Your task to perform on an android device: Look up the best rated headphones on Aliexpress Image 0: 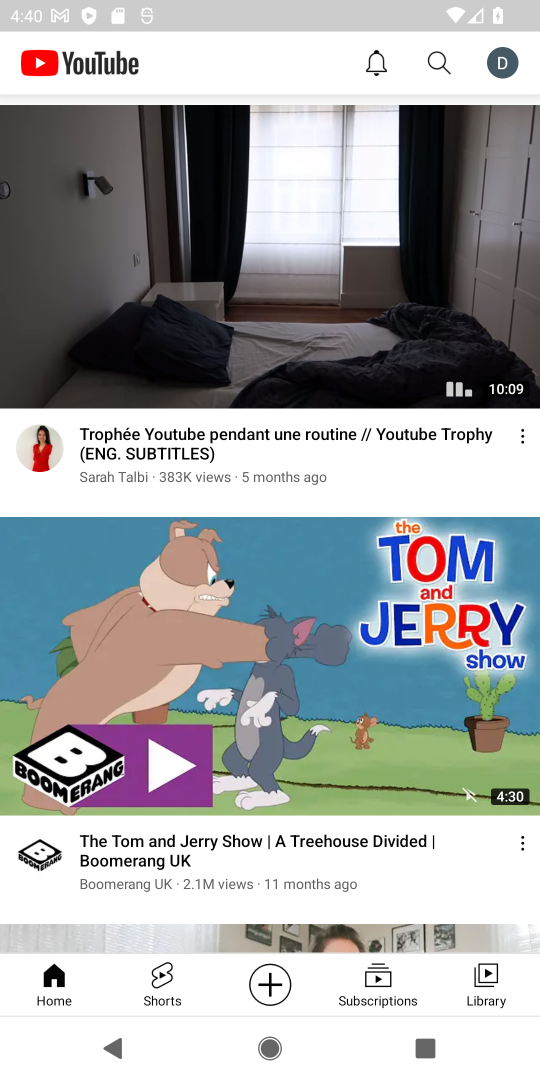
Step 0: click (441, 67)
Your task to perform on an android device: Look up the best rated headphones on Aliexpress Image 1: 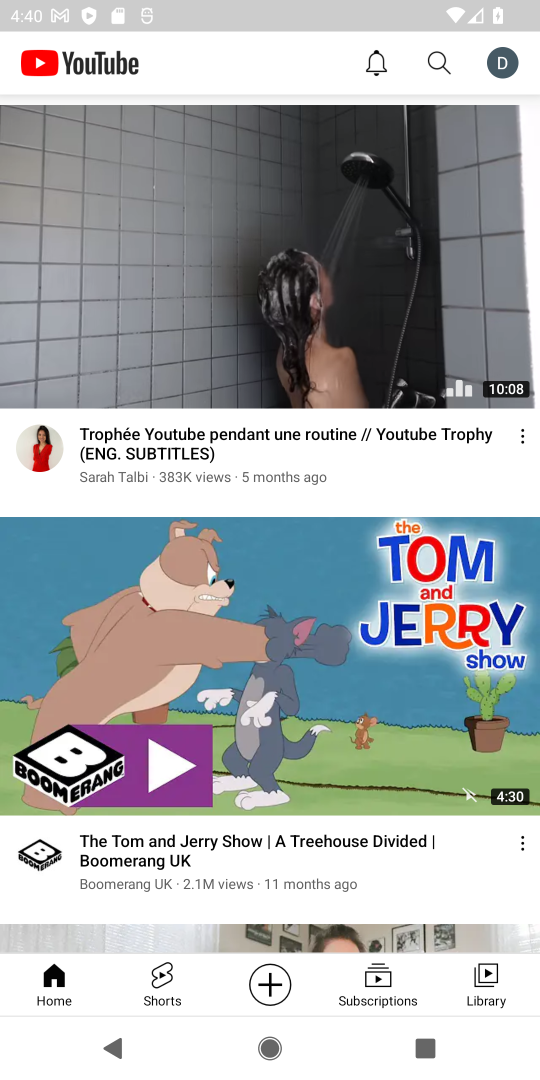
Step 1: press home button
Your task to perform on an android device: Look up the best rated headphones on Aliexpress Image 2: 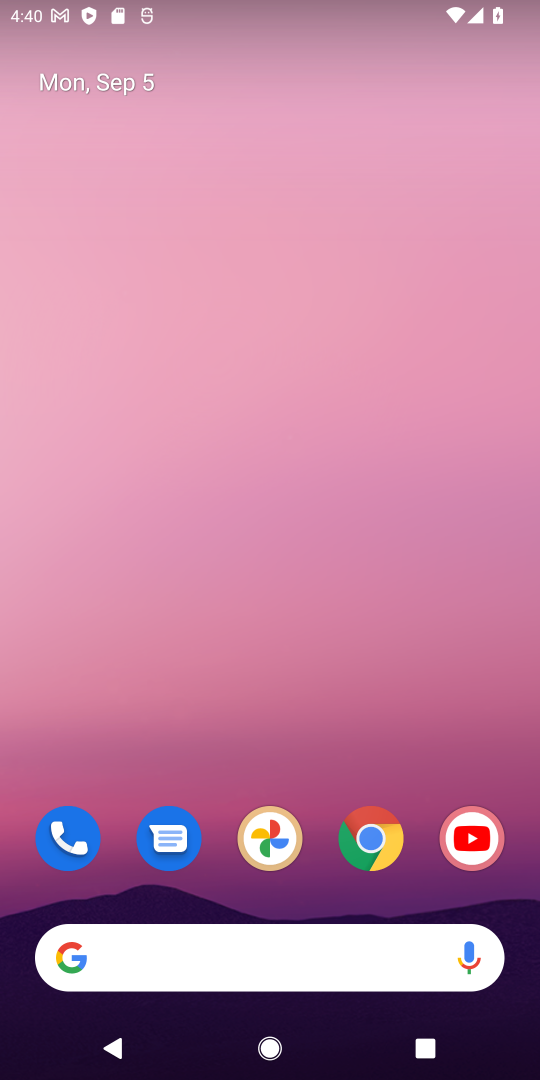
Step 2: click (367, 843)
Your task to perform on an android device: Look up the best rated headphones on Aliexpress Image 3: 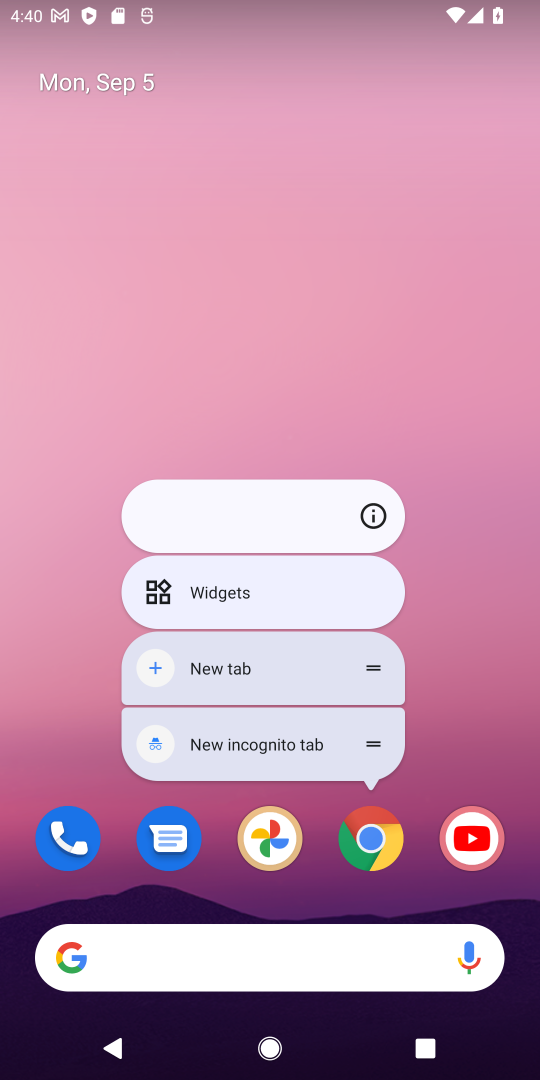
Step 3: click (374, 841)
Your task to perform on an android device: Look up the best rated headphones on Aliexpress Image 4: 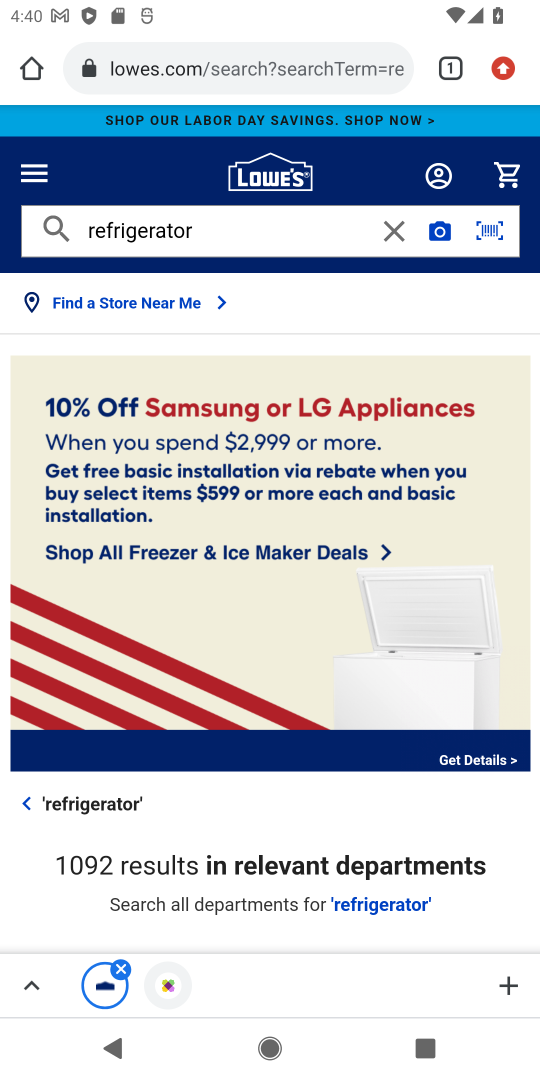
Step 4: click (297, 64)
Your task to perform on an android device: Look up the best rated headphones on Aliexpress Image 5: 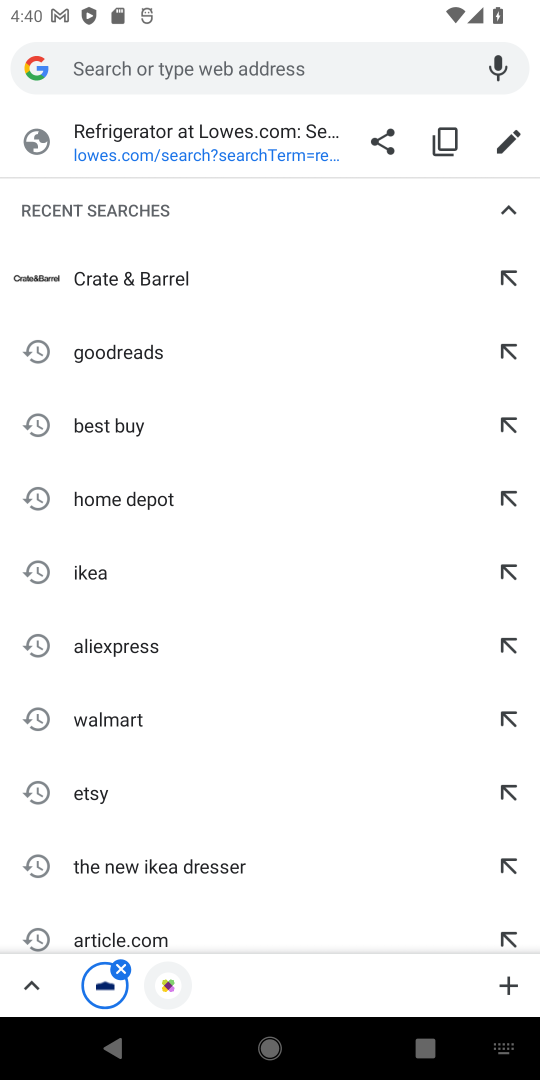
Step 5: type "Aliexpress"
Your task to perform on an android device: Look up the best rated headphones on Aliexpress Image 6: 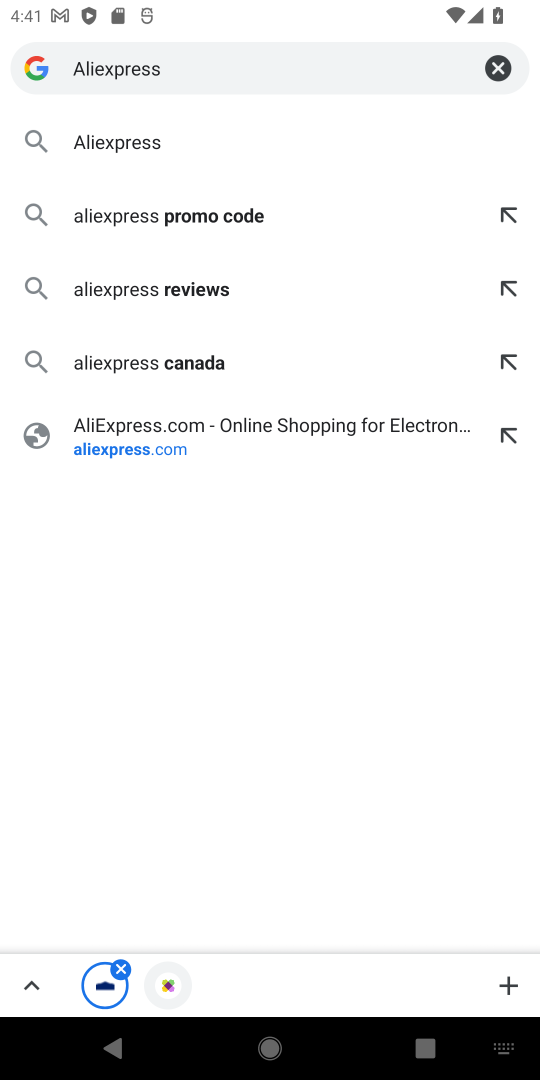
Step 6: click (125, 135)
Your task to perform on an android device: Look up the best rated headphones on Aliexpress Image 7: 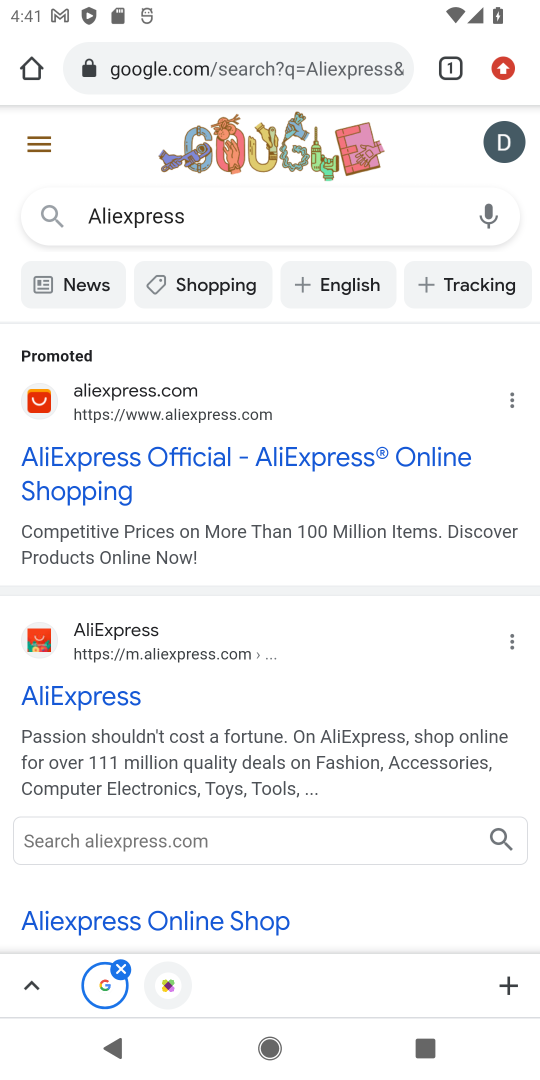
Step 7: click (109, 458)
Your task to perform on an android device: Look up the best rated headphones on Aliexpress Image 8: 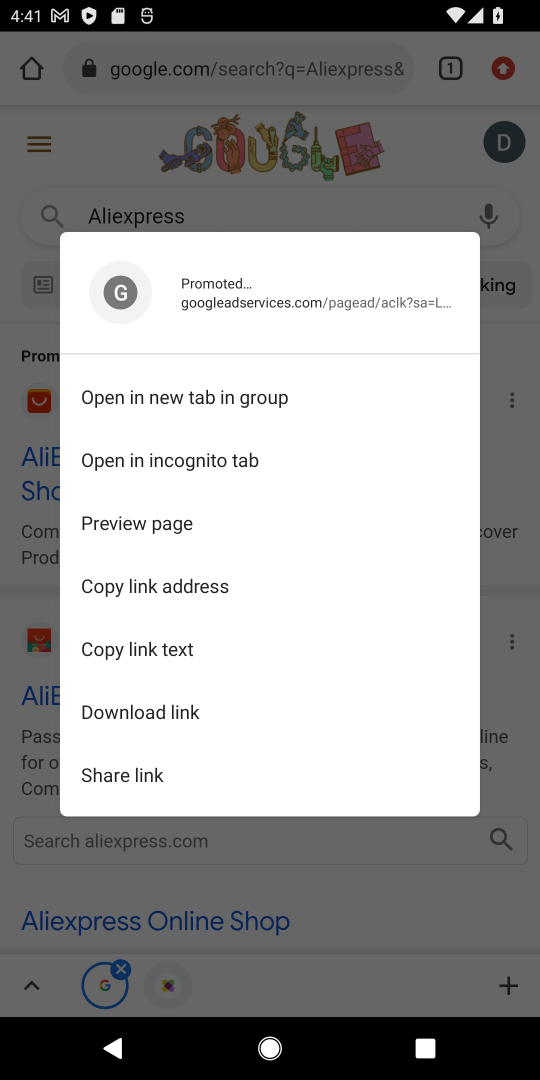
Step 8: click (518, 575)
Your task to perform on an android device: Look up the best rated headphones on Aliexpress Image 9: 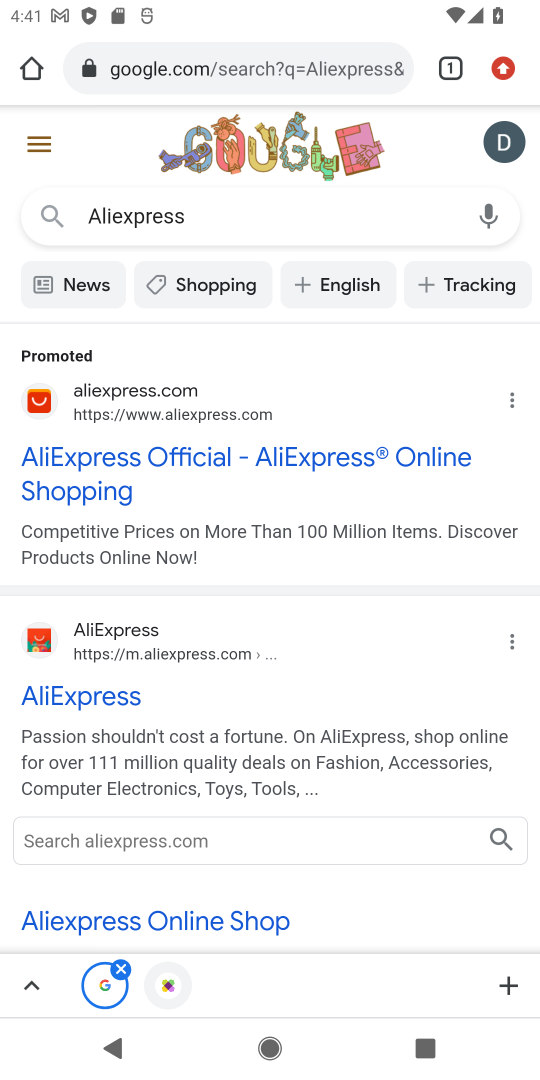
Step 9: task complete